Your task to perform on an android device: Open Google Image 0: 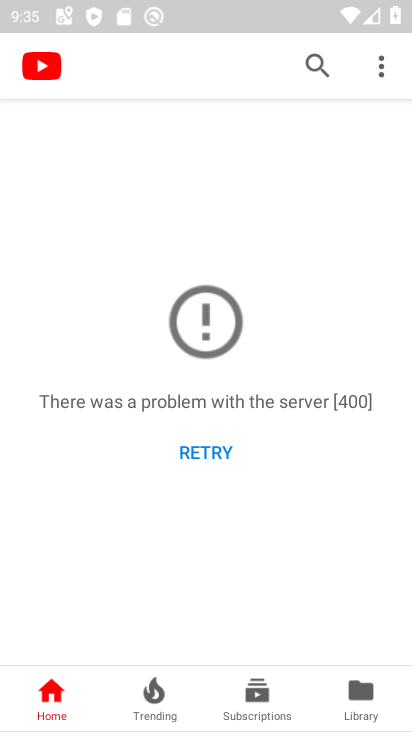
Step 0: press home button
Your task to perform on an android device: Open Google Image 1: 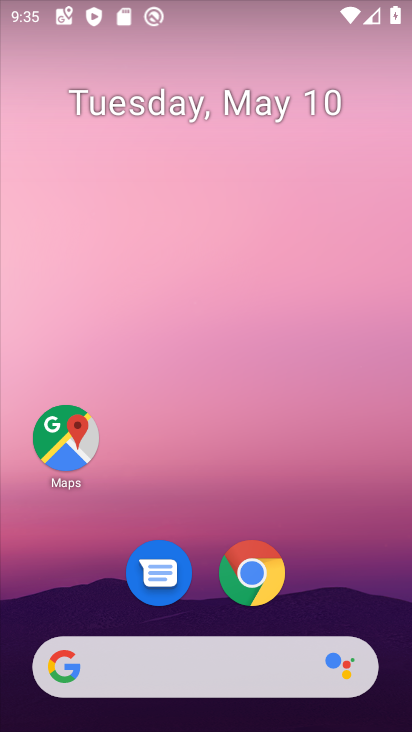
Step 1: click (188, 656)
Your task to perform on an android device: Open Google Image 2: 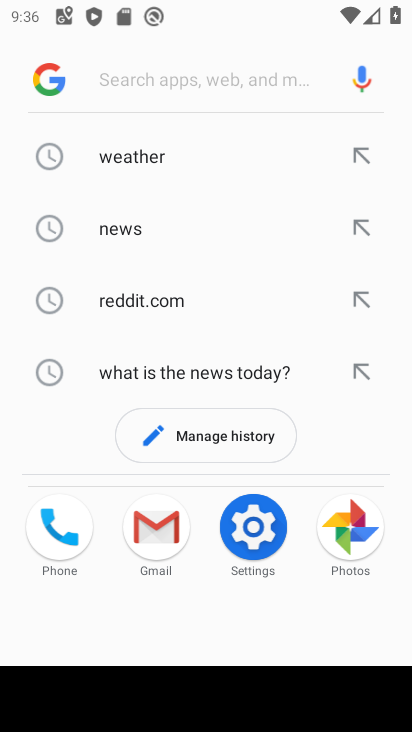
Step 2: click (54, 82)
Your task to perform on an android device: Open Google Image 3: 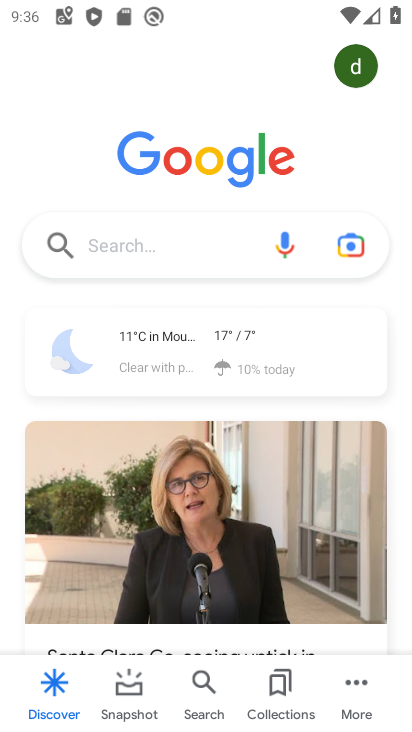
Step 3: task complete